Your task to perform on an android device: Search for sushi restaurants on Maps Image 0: 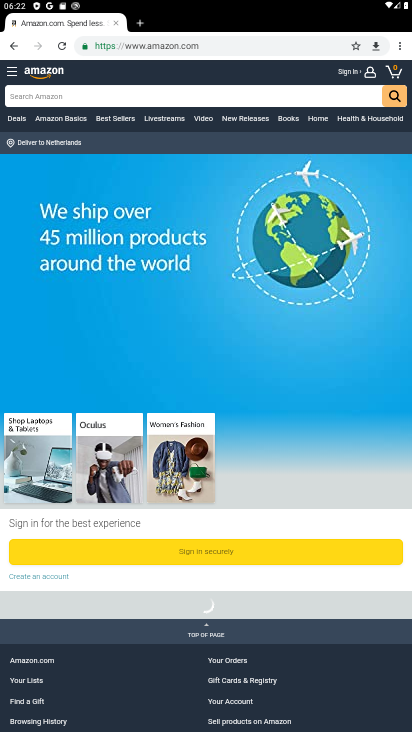
Step 0: press home button
Your task to perform on an android device: Search for sushi restaurants on Maps Image 1: 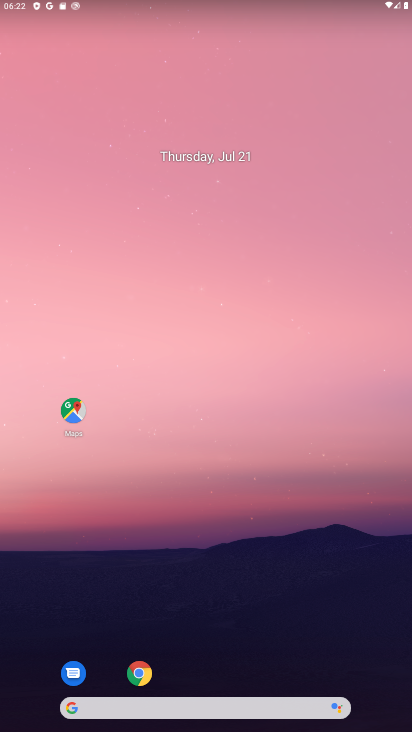
Step 1: click (74, 421)
Your task to perform on an android device: Search for sushi restaurants on Maps Image 2: 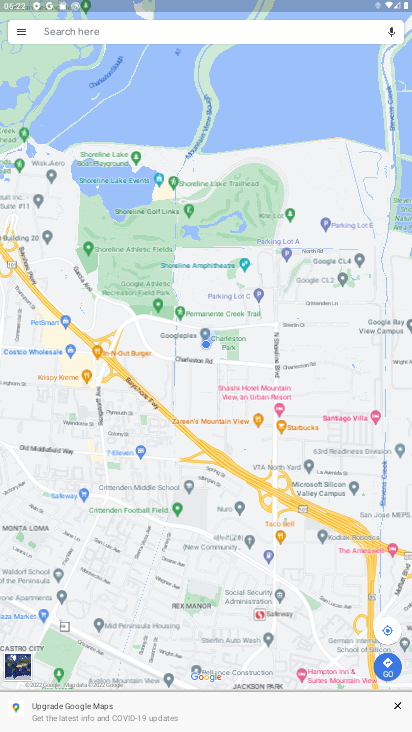
Step 2: click (64, 30)
Your task to perform on an android device: Search for sushi restaurants on Maps Image 3: 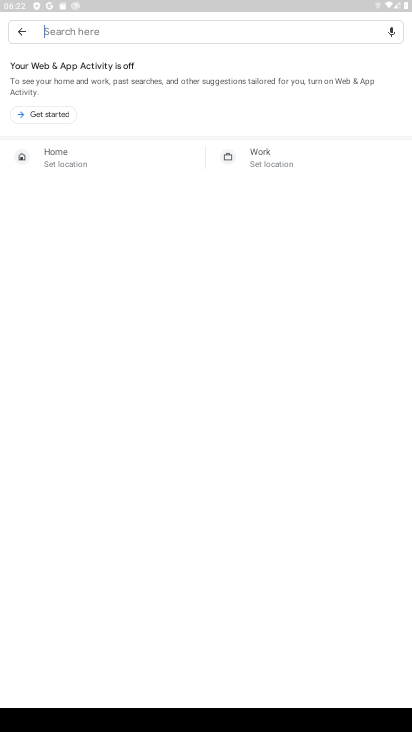
Step 3: type "sushi restaurants"
Your task to perform on an android device: Search for sushi restaurants on Maps Image 4: 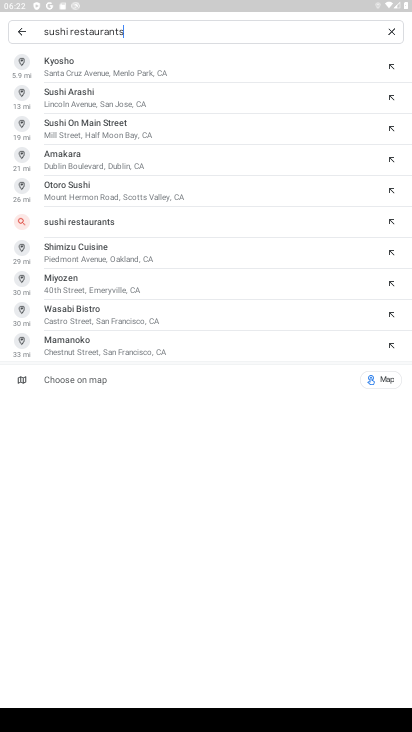
Step 4: click (116, 218)
Your task to perform on an android device: Search for sushi restaurants on Maps Image 5: 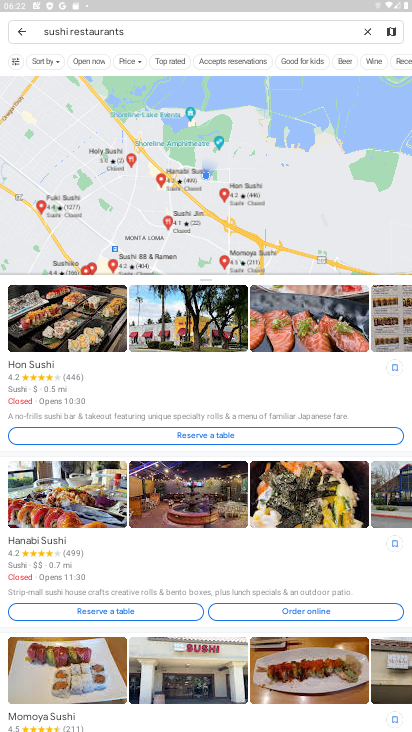
Step 5: task complete